Your task to perform on an android device: Open Maps and search for coffee Image 0: 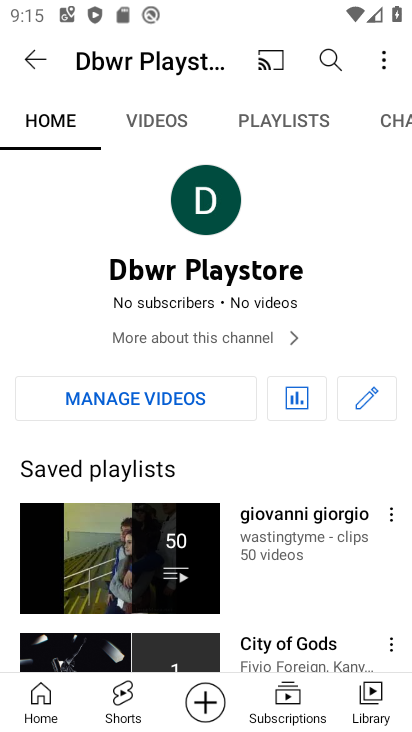
Step 0: press home button
Your task to perform on an android device: Open Maps and search for coffee Image 1: 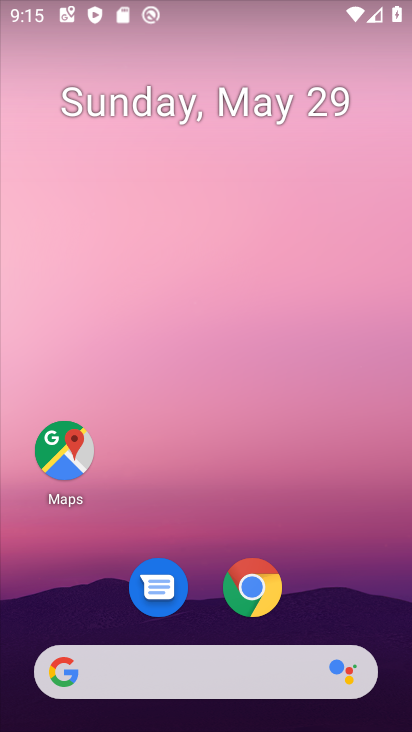
Step 1: click (58, 458)
Your task to perform on an android device: Open Maps and search for coffee Image 2: 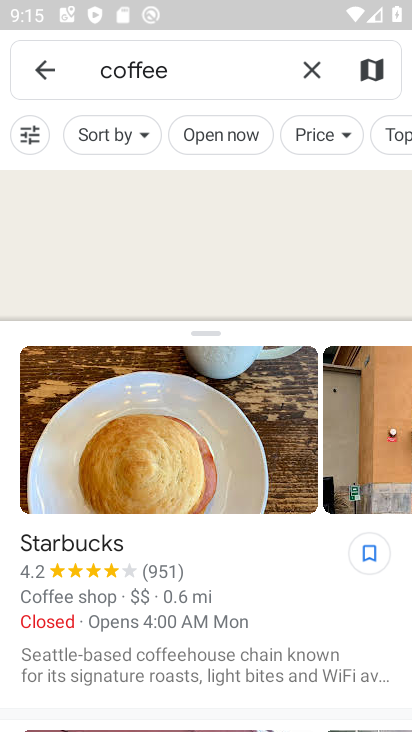
Step 2: click (305, 64)
Your task to perform on an android device: Open Maps and search for coffee Image 3: 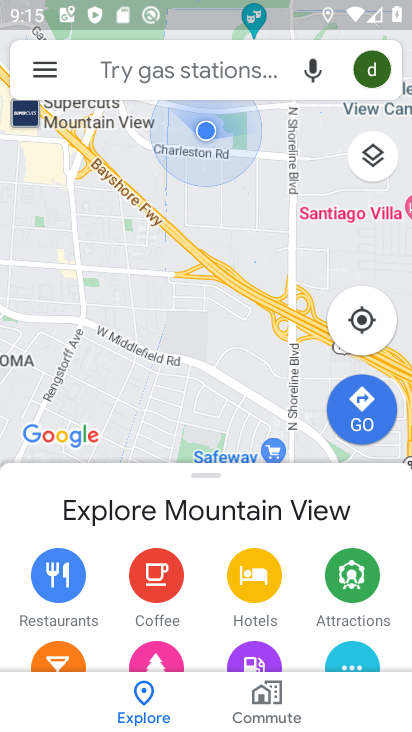
Step 3: click (178, 73)
Your task to perform on an android device: Open Maps and search for coffee Image 4: 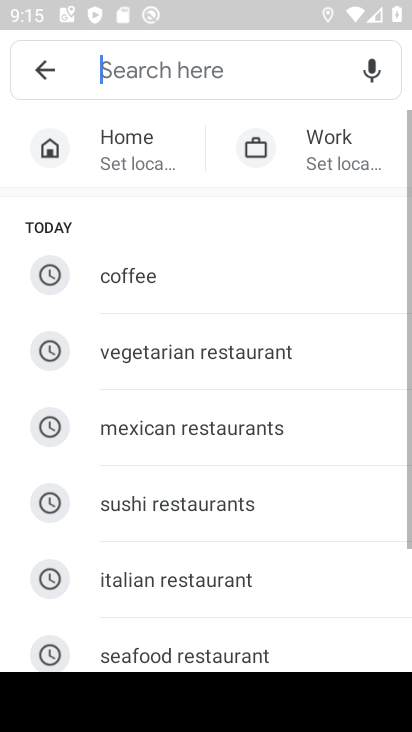
Step 4: click (146, 286)
Your task to perform on an android device: Open Maps and search for coffee Image 5: 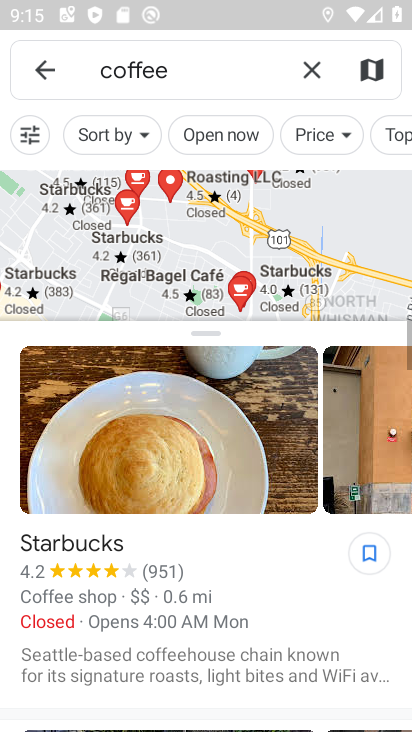
Step 5: task complete